Your task to perform on an android device: check data usage Image 0: 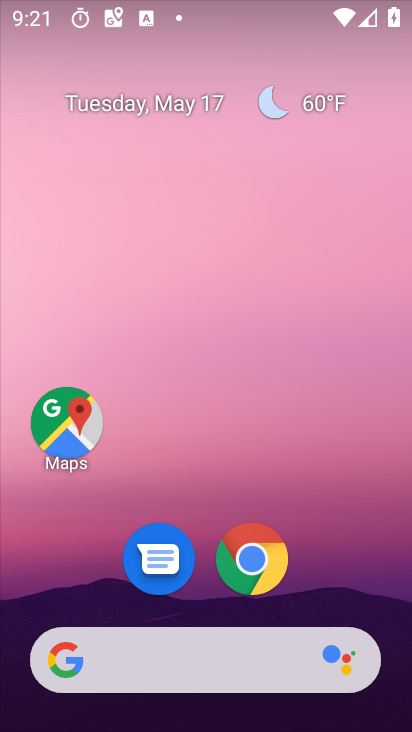
Step 0: drag from (192, 647) to (171, 149)
Your task to perform on an android device: check data usage Image 1: 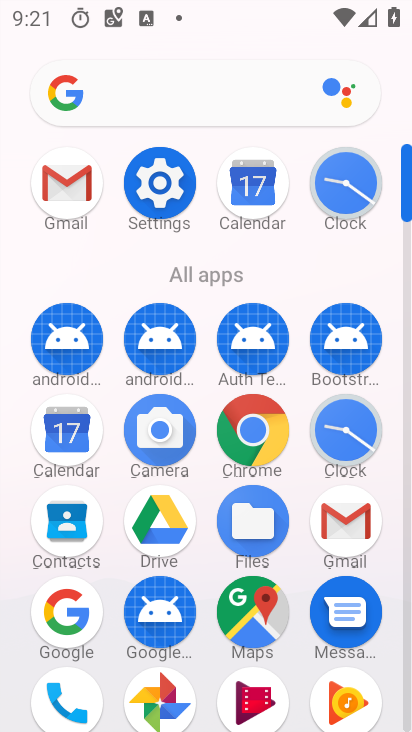
Step 1: click (173, 199)
Your task to perform on an android device: check data usage Image 2: 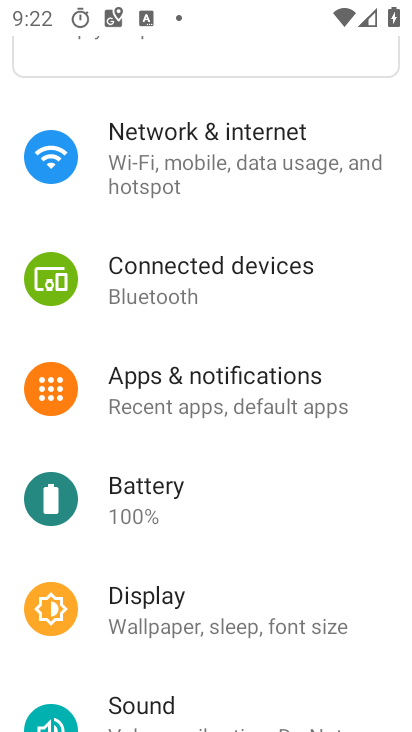
Step 2: click (177, 191)
Your task to perform on an android device: check data usage Image 3: 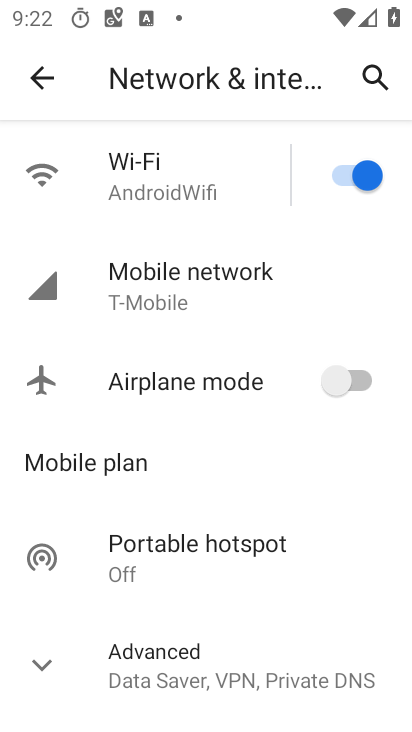
Step 3: click (144, 285)
Your task to perform on an android device: check data usage Image 4: 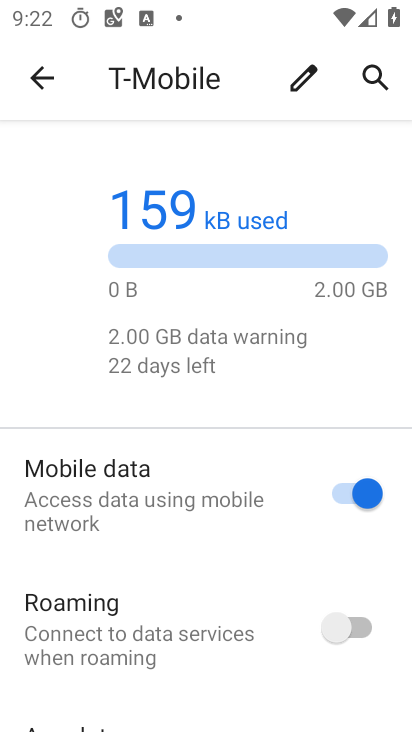
Step 4: task complete